Your task to perform on an android device: set the stopwatch Image 0: 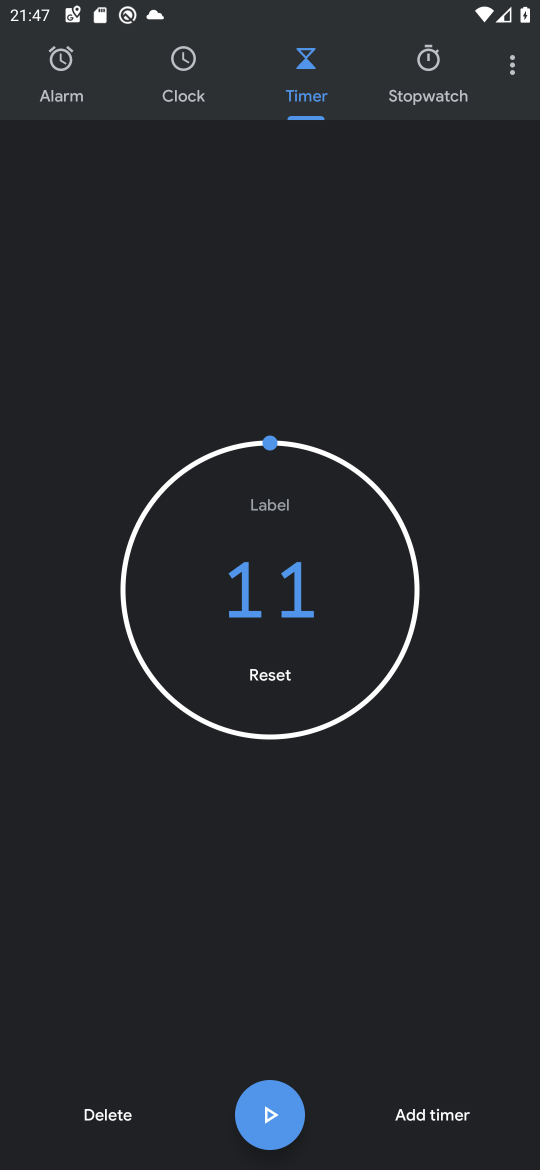
Step 0: click (430, 62)
Your task to perform on an android device: set the stopwatch Image 1: 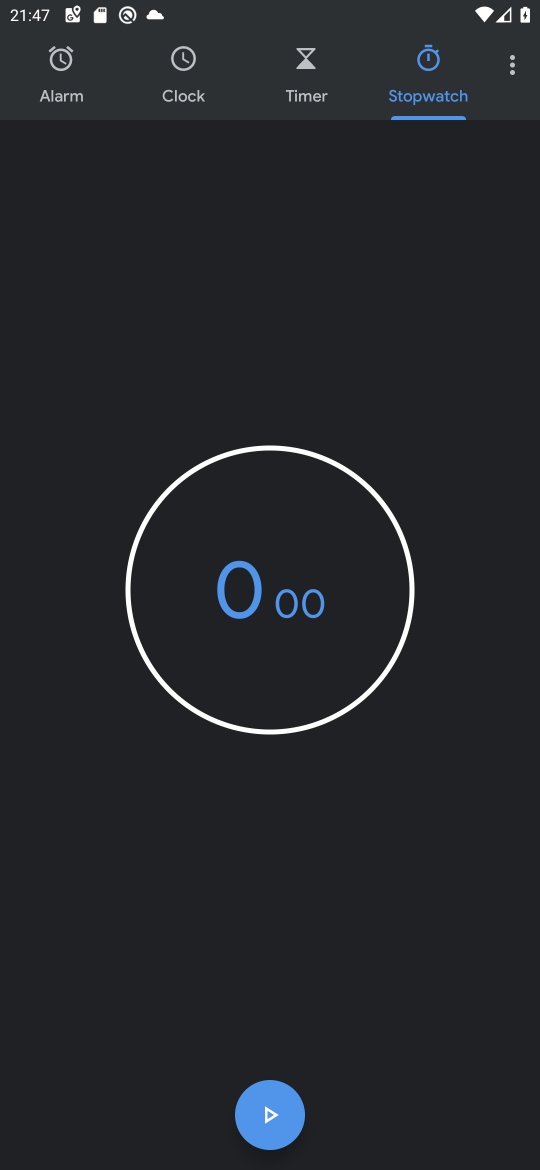
Step 1: click (273, 1112)
Your task to perform on an android device: set the stopwatch Image 2: 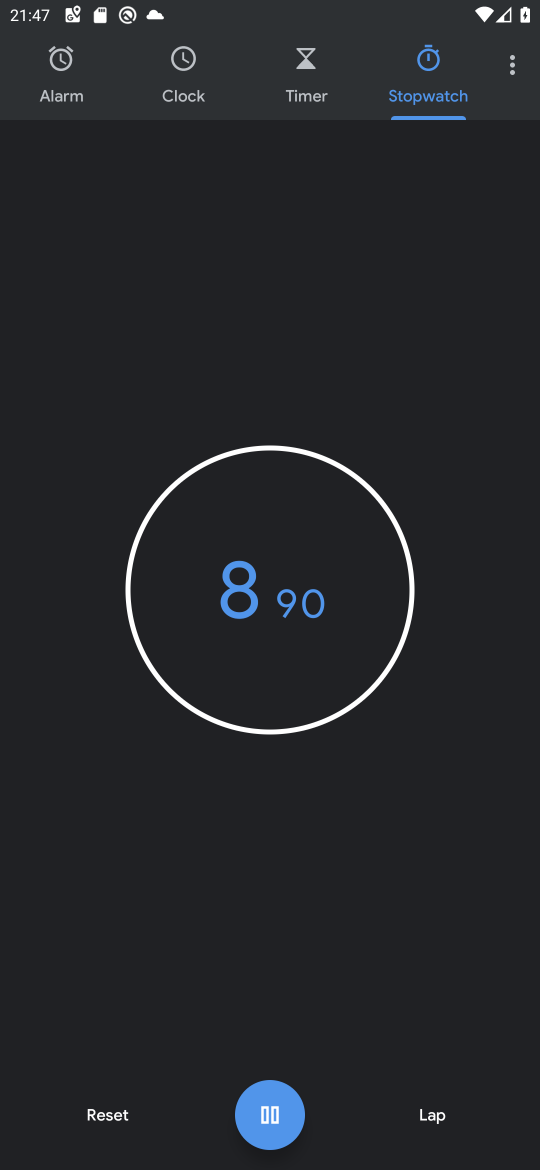
Step 2: task complete